Your task to perform on an android device: toggle notification dots Image 0: 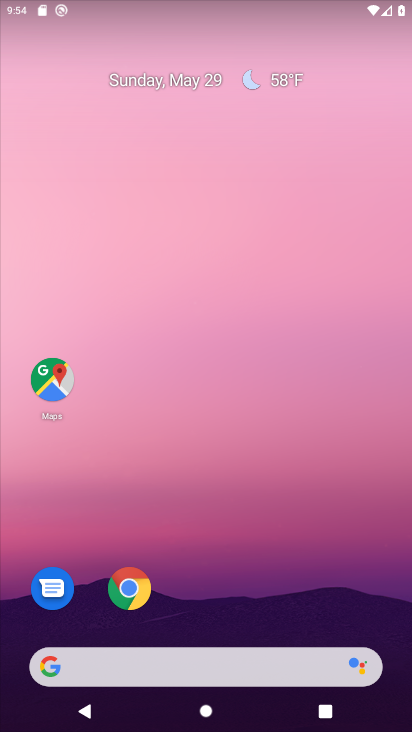
Step 0: drag from (258, 633) to (258, 264)
Your task to perform on an android device: toggle notification dots Image 1: 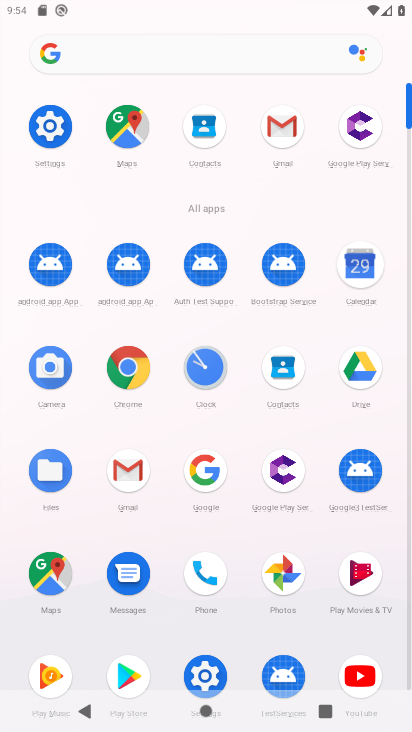
Step 1: click (55, 125)
Your task to perform on an android device: toggle notification dots Image 2: 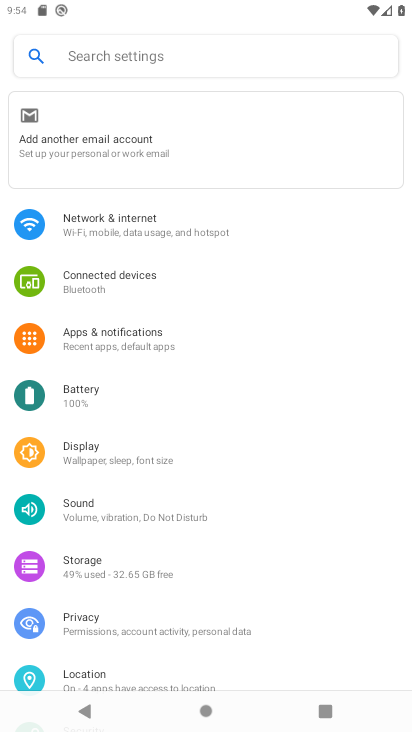
Step 2: click (119, 346)
Your task to perform on an android device: toggle notification dots Image 3: 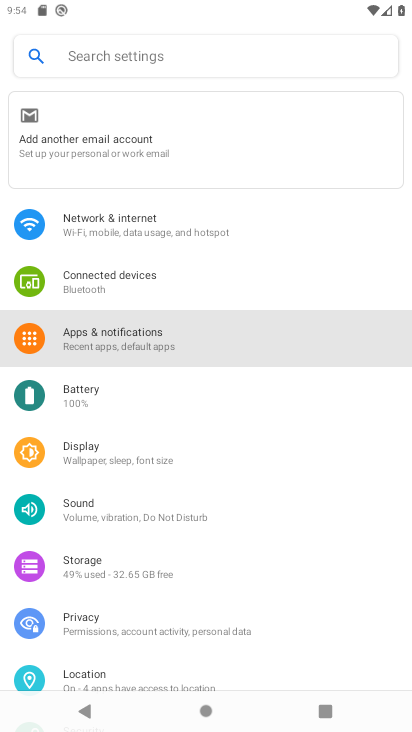
Step 3: click (118, 347)
Your task to perform on an android device: toggle notification dots Image 4: 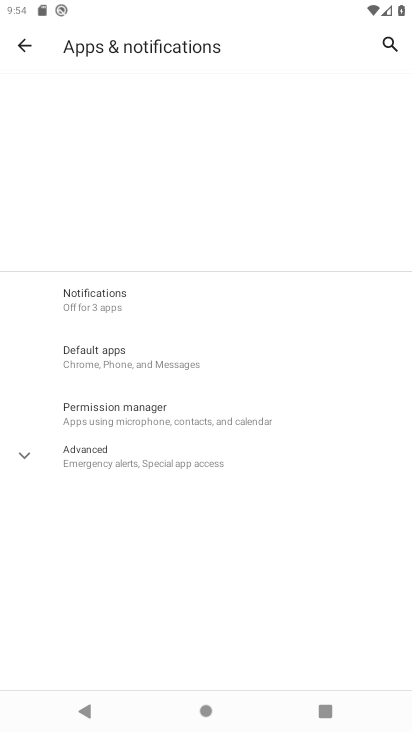
Step 4: click (113, 335)
Your task to perform on an android device: toggle notification dots Image 5: 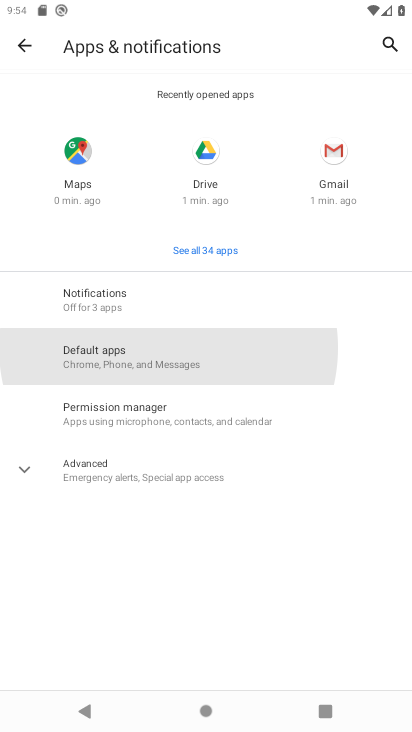
Step 5: click (114, 334)
Your task to perform on an android device: toggle notification dots Image 6: 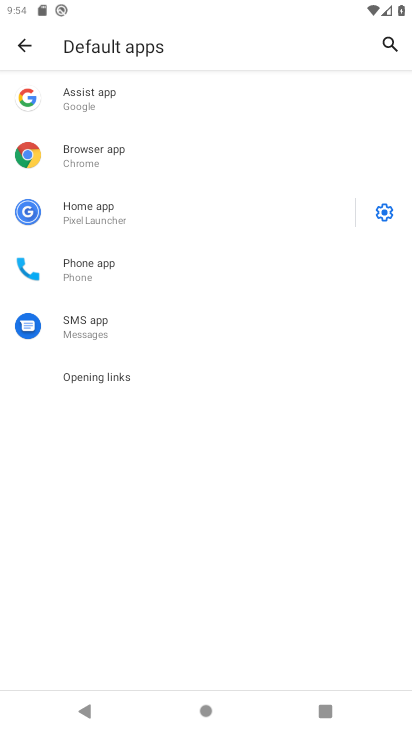
Step 6: click (22, 46)
Your task to perform on an android device: toggle notification dots Image 7: 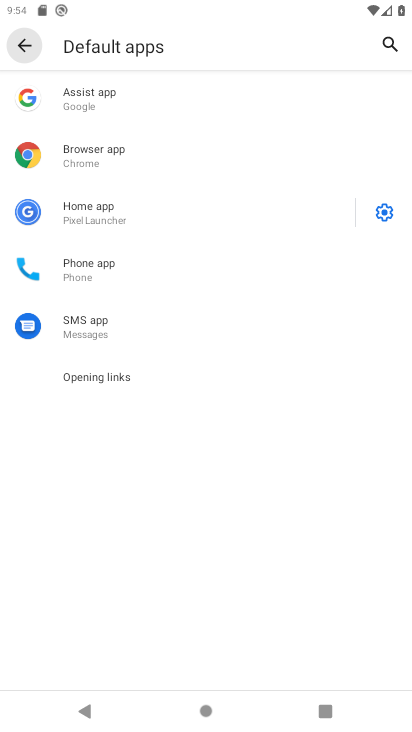
Step 7: click (22, 46)
Your task to perform on an android device: toggle notification dots Image 8: 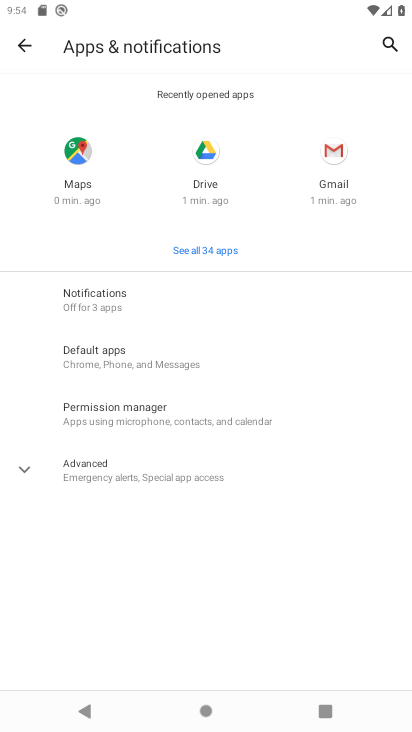
Step 8: click (105, 298)
Your task to perform on an android device: toggle notification dots Image 9: 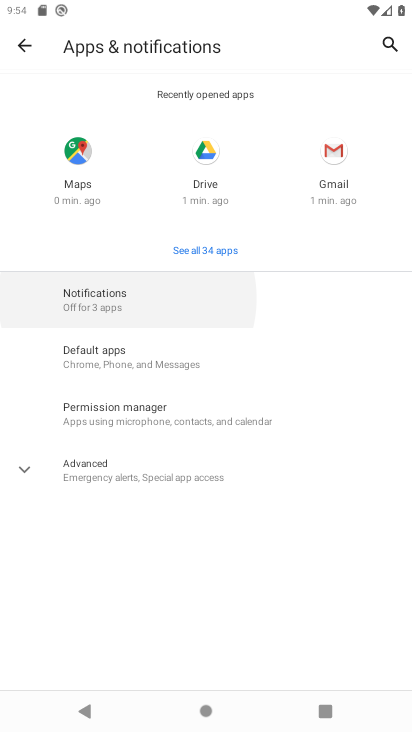
Step 9: click (104, 299)
Your task to perform on an android device: toggle notification dots Image 10: 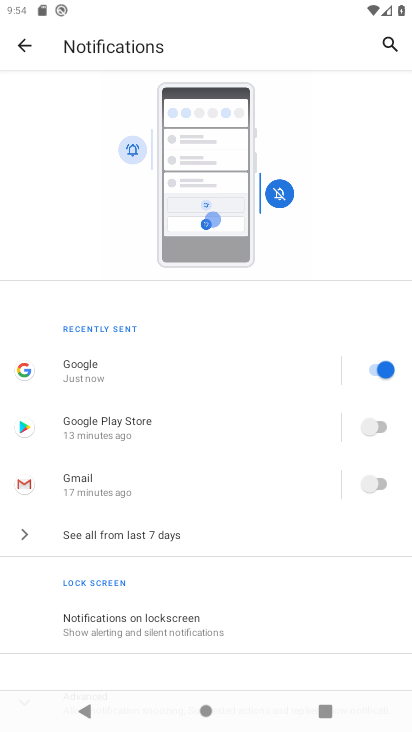
Step 10: drag from (191, 579) to (127, 324)
Your task to perform on an android device: toggle notification dots Image 11: 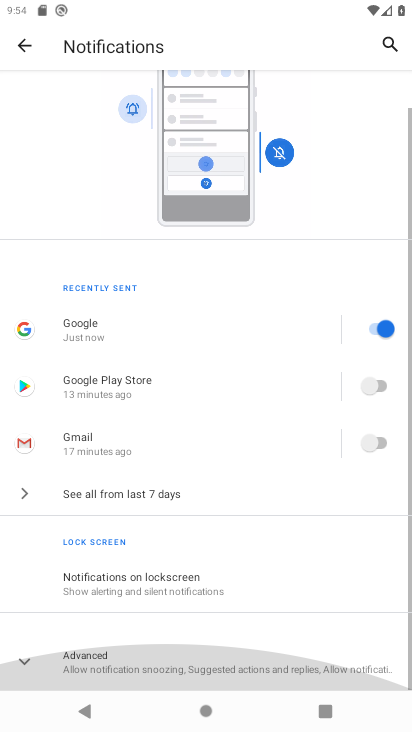
Step 11: drag from (169, 496) to (136, 297)
Your task to perform on an android device: toggle notification dots Image 12: 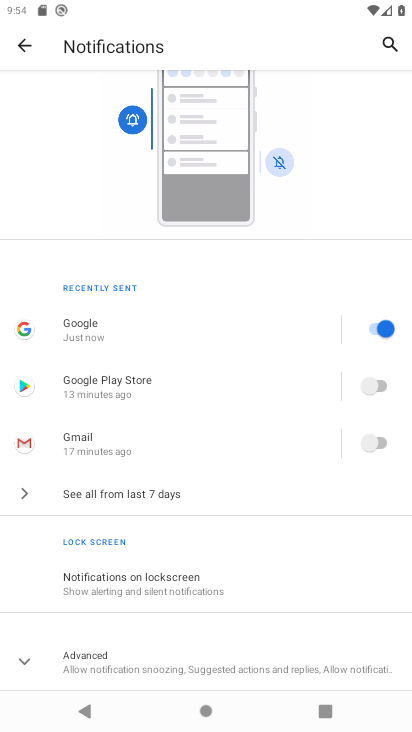
Step 12: click (68, 662)
Your task to perform on an android device: toggle notification dots Image 13: 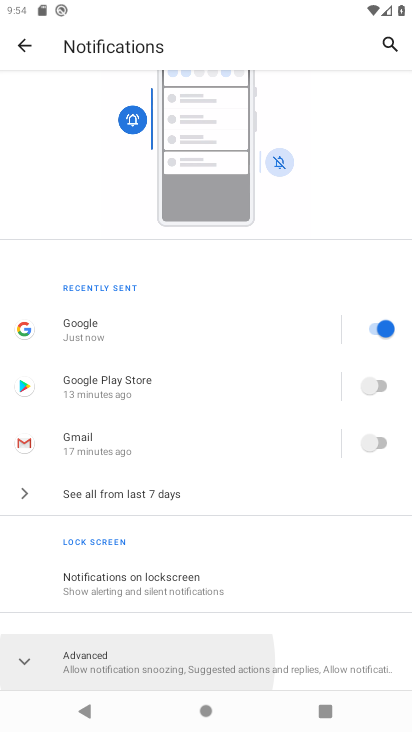
Step 13: click (75, 660)
Your task to perform on an android device: toggle notification dots Image 14: 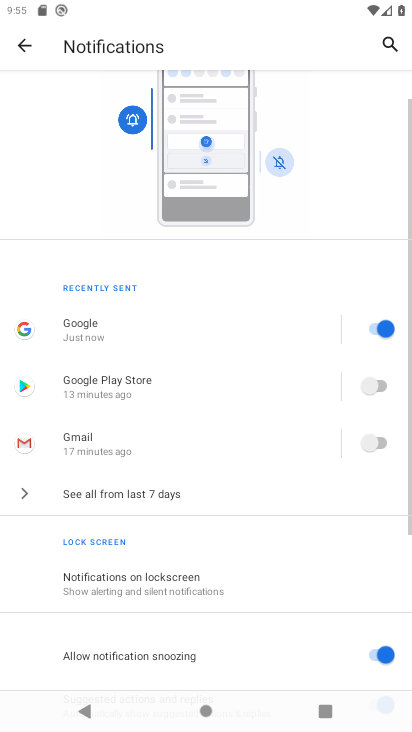
Step 14: drag from (194, 463) to (194, 253)
Your task to perform on an android device: toggle notification dots Image 15: 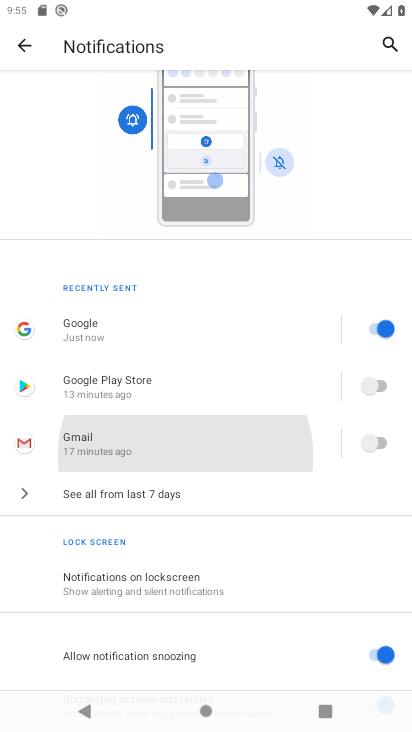
Step 15: drag from (289, 517) to (245, 250)
Your task to perform on an android device: toggle notification dots Image 16: 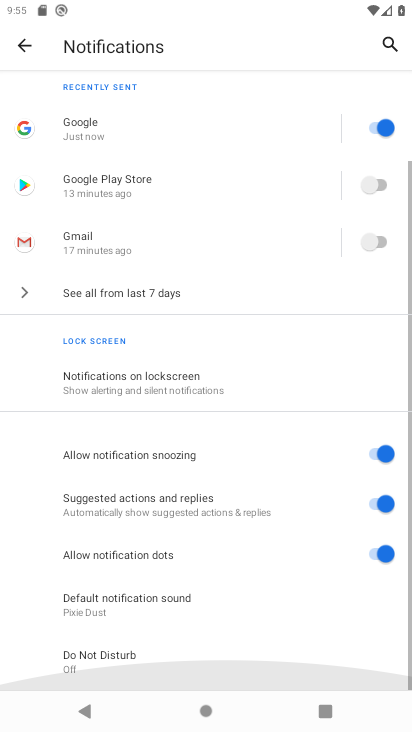
Step 16: drag from (240, 292) to (239, 240)
Your task to perform on an android device: toggle notification dots Image 17: 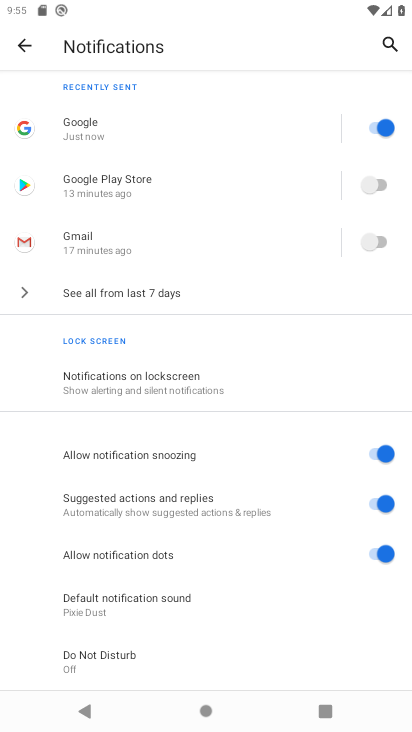
Step 17: click (393, 550)
Your task to perform on an android device: toggle notification dots Image 18: 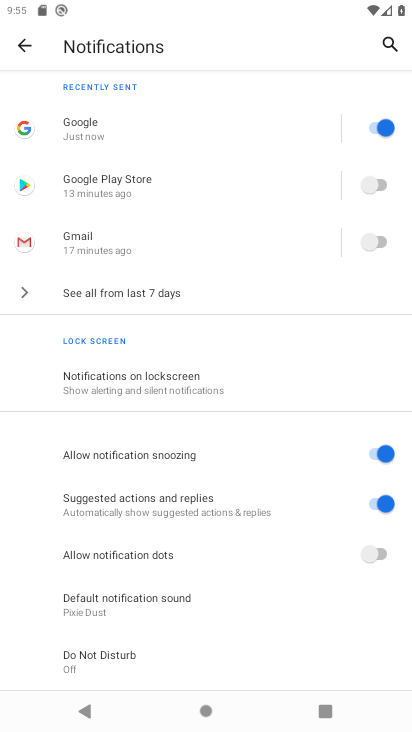
Step 18: task complete